Your task to perform on an android device: When is my next meeting? Image 0: 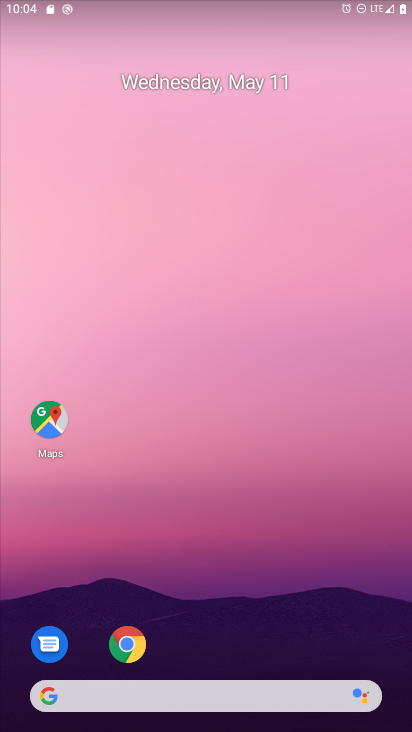
Step 0: drag from (315, 547) to (217, 154)
Your task to perform on an android device: When is my next meeting? Image 1: 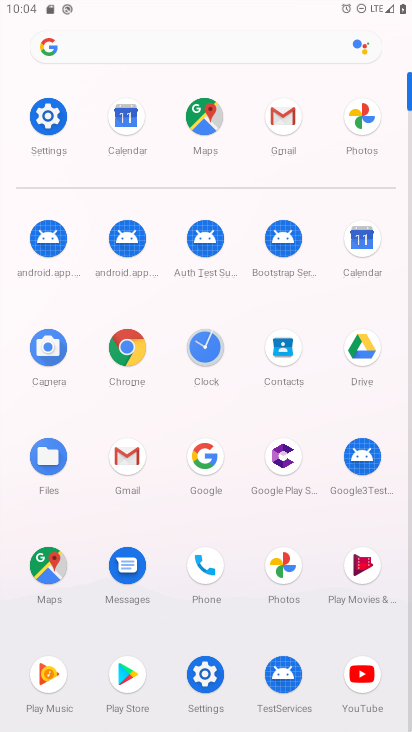
Step 1: click (350, 240)
Your task to perform on an android device: When is my next meeting? Image 2: 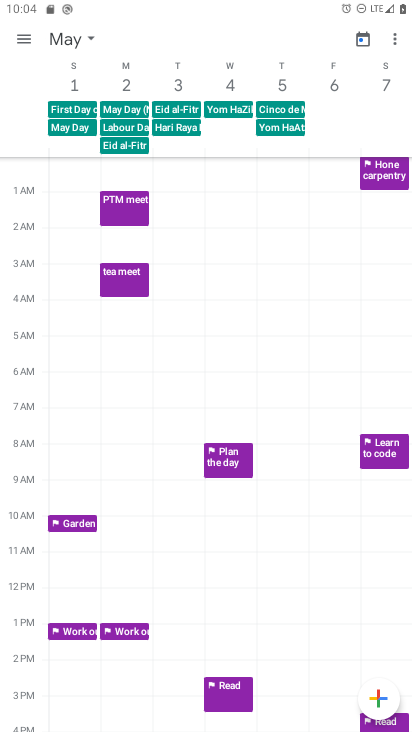
Step 2: click (87, 33)
Your task to perform on an android device: When is my next meeting? Image 3: 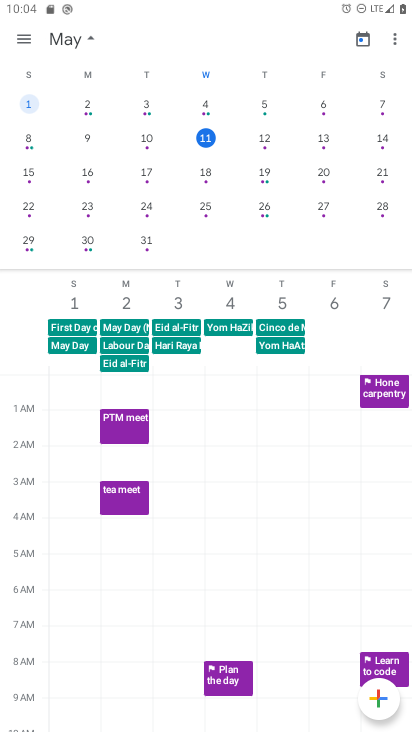
Step 3: click (202, 138)
Your task to perform on an android device: When is my next meeting? Image 4: 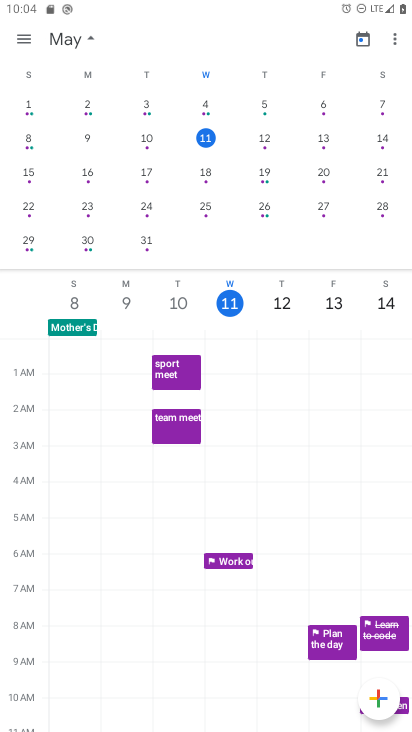
Step 4: task complete